Your task to perform on an android device: Toggle the flashlight Image 0: 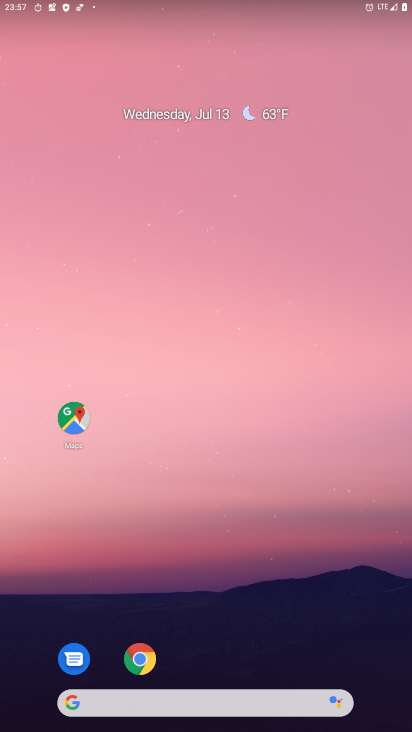
Step 0: drag from (363, 656) to (325, 162)
Your task to perform on an android device: Toggle the flashlight Image 1: 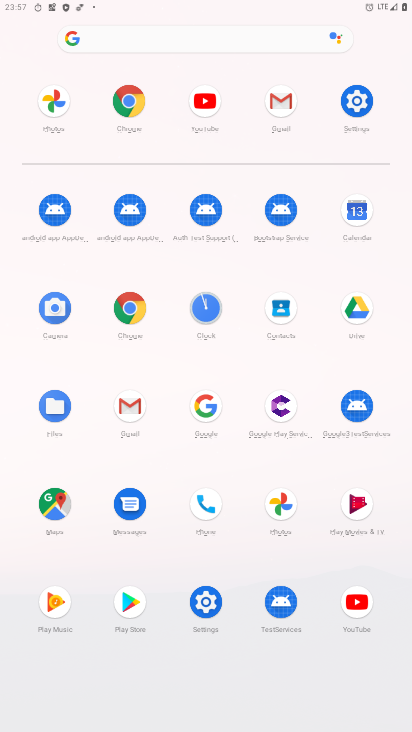
Step 1: click (356, 98)
Your task to perform on an android device: Toggle the flashlight Image 2: 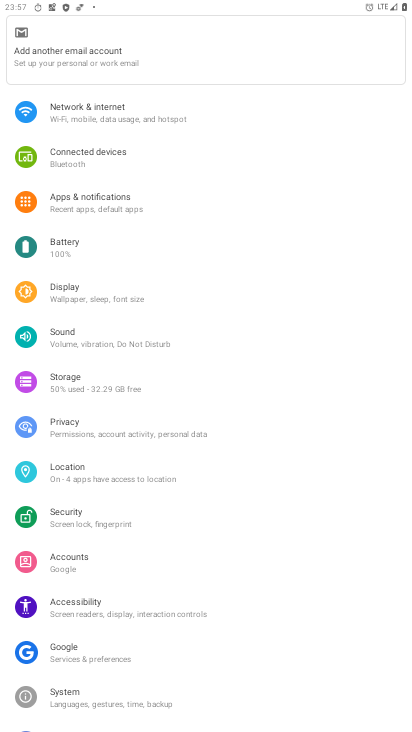
Step 2: click (115, 300)
Your task to perform on an android device: Toggle the flashlight Image 3: 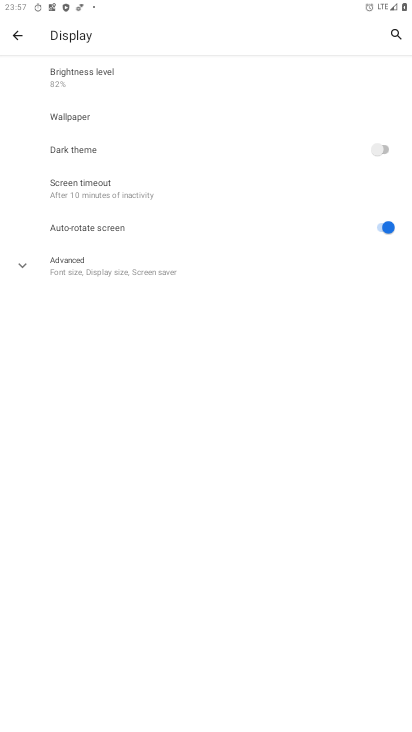
Step 3: task complete